Your task to perform on an android device: delete location history Image 0: 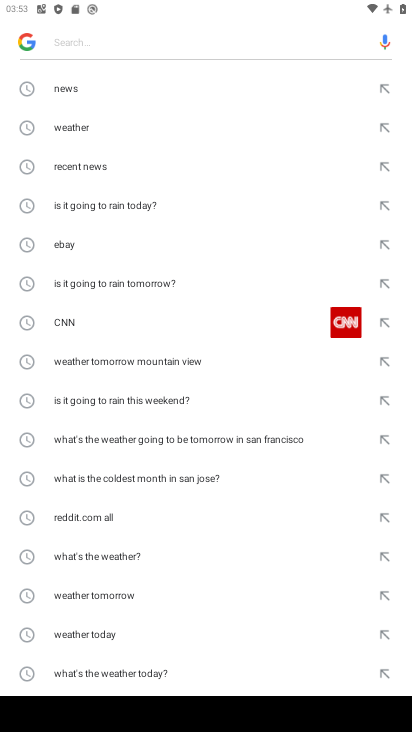
Step 0: press home button
Your task to perform on an android device: delete location history Image 1: 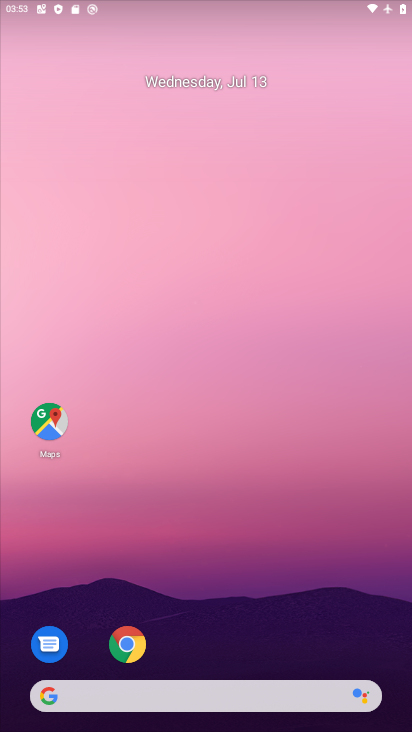
Step 1: drag from (321, 610) to (245, 70)
Your task to perform on an android device: delete location history Image 2: 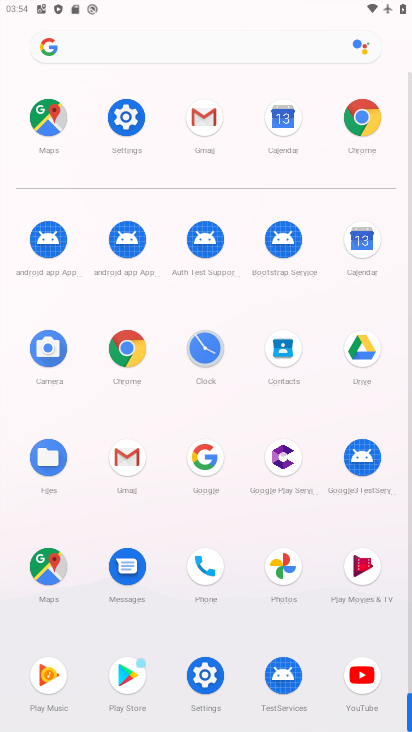
Step 2: click (54, 117)
Your task to perform on an android device: delete location history Image 3: 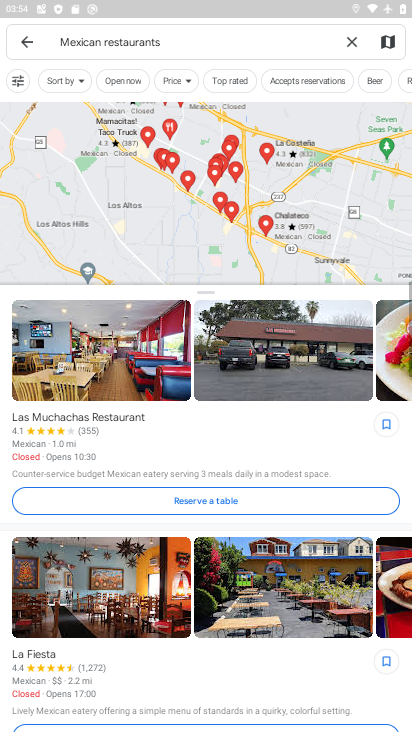
Step 3: click (27, 42)
Your task to perform on an android device: delete location history Image 4: 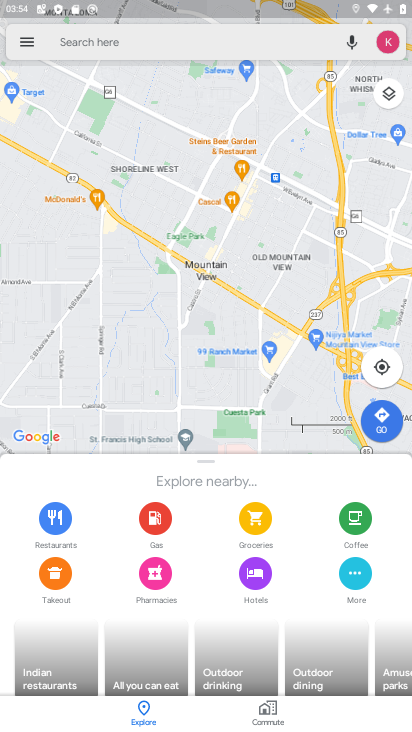
Step 4: click (30, 42)
Your task to perform on an android device: delete location history Image 5: 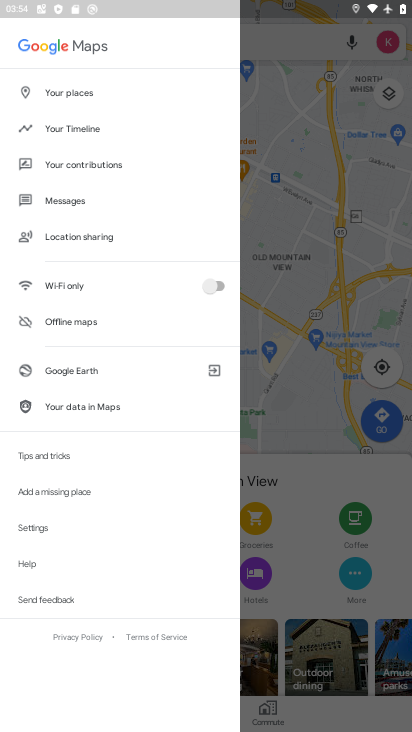
Step 5: click (45, 526)
Your task to perform on an android device: delete location history Image 6: 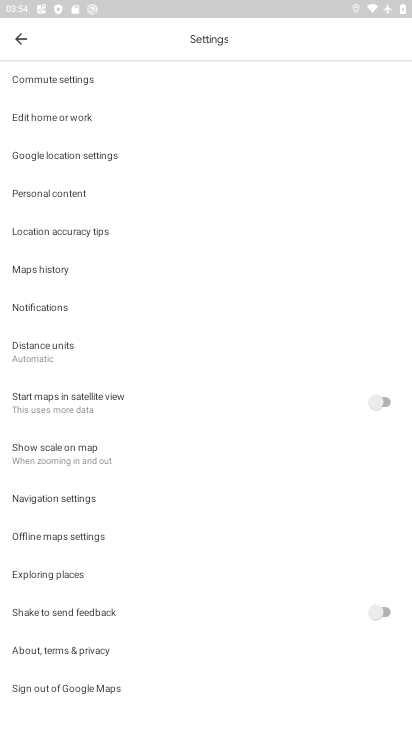
Step 6: click (41, 270)
Your task to perform on an android device: delete location history Image 7: 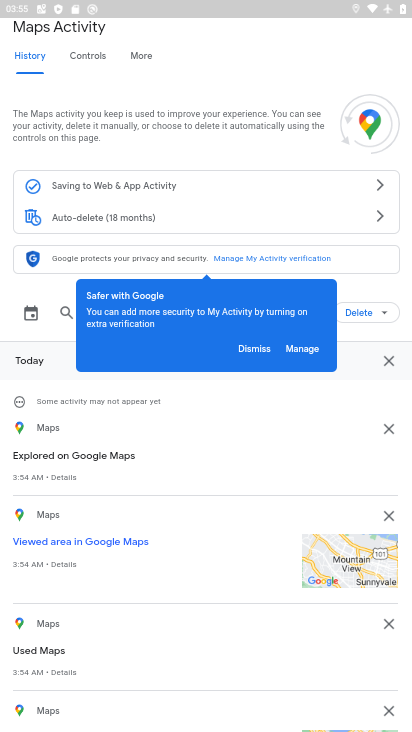
Step 7: click (385, 311)
Your task to perform on an android device: delete location history Image 8: 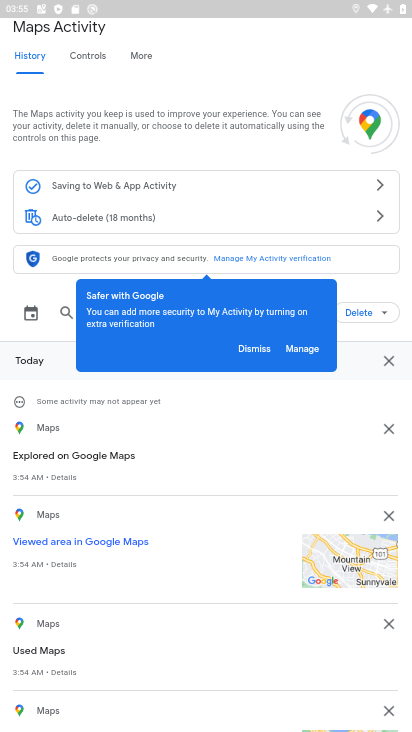
Step 8: click (394, 312)
Your task to perform on an android device: delete location history Image 9: 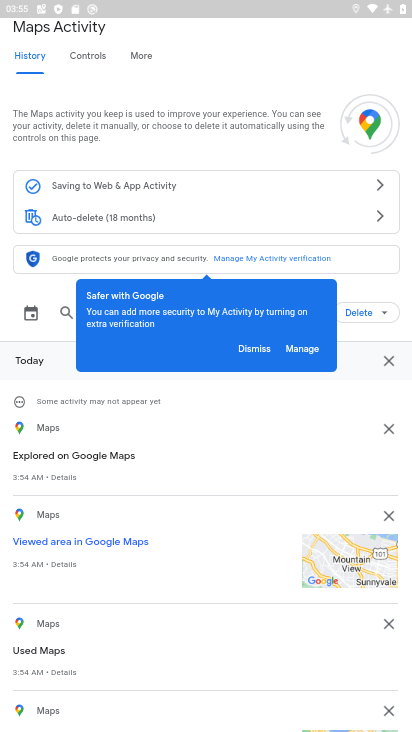
Step 9: click (384, 318)
Your task to perform on an android device: delete location history Image 10: 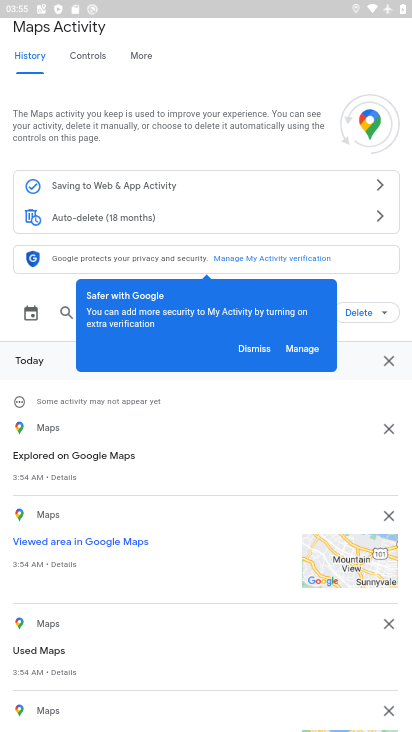
Step 10: click (375, 316)
Your task to perform on an android device: delete location history Image 11: 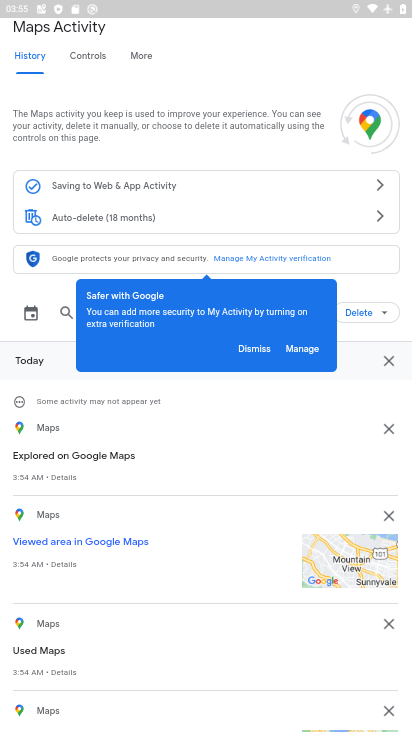
Step 11: click (383, 309)
Your task to perform on an android device: delete location history Image 12: 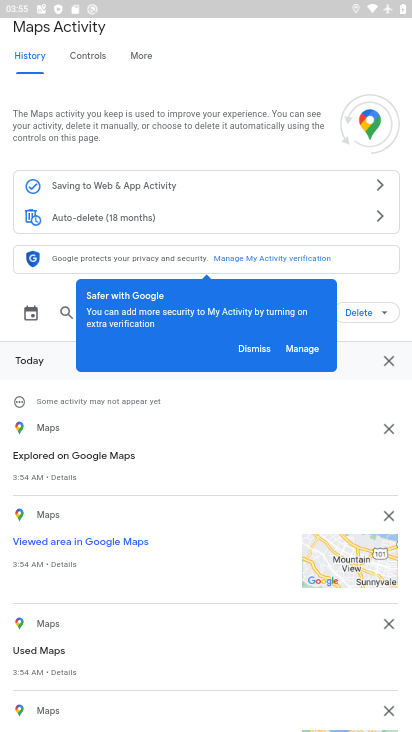
Step 12: click (380, 306)
Your task to perform on an android device: delete location history Image 13: 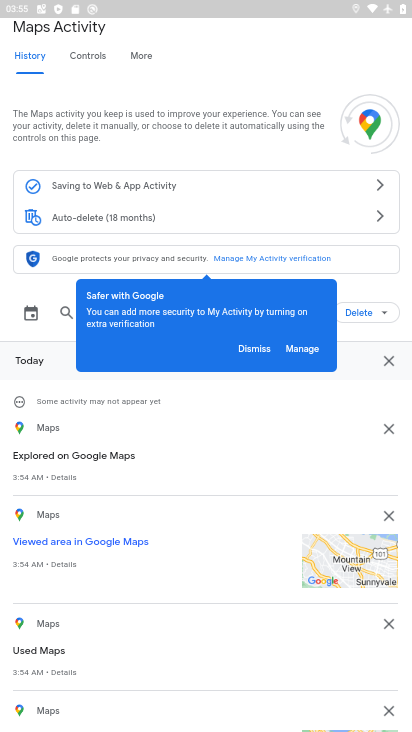
Step 13: click (380, 306)
Your task to perform on an android device: delete location history Image 14: 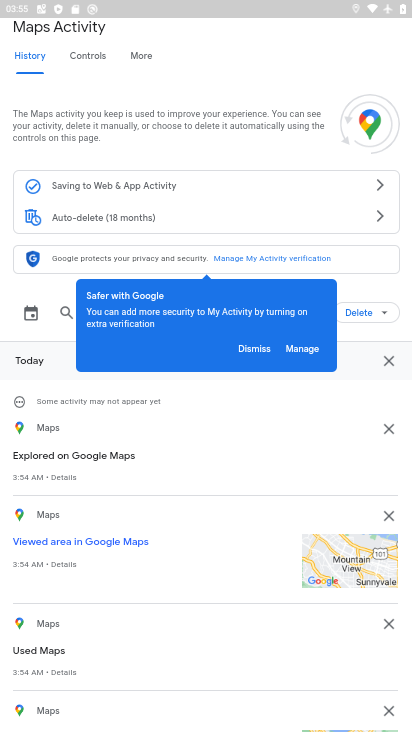
Step 14: click (242, 350)
Your task to perform on an android device: delete location history Image 15: 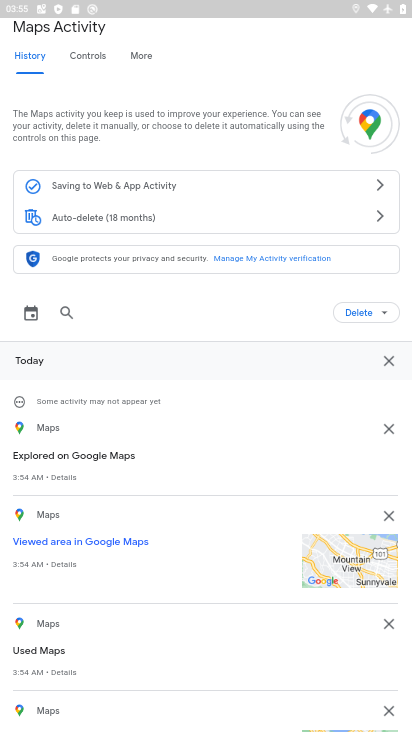
Step 15: click (393, 311)
Your task to perform on an android device: delete location history Image 16: 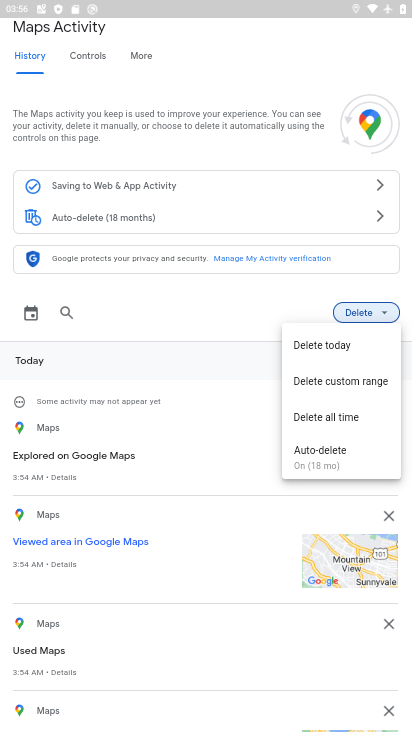
Step 16: drag from (328, 452) to (311, 419)
Your task to perform on an android device: delete location history Image 17: 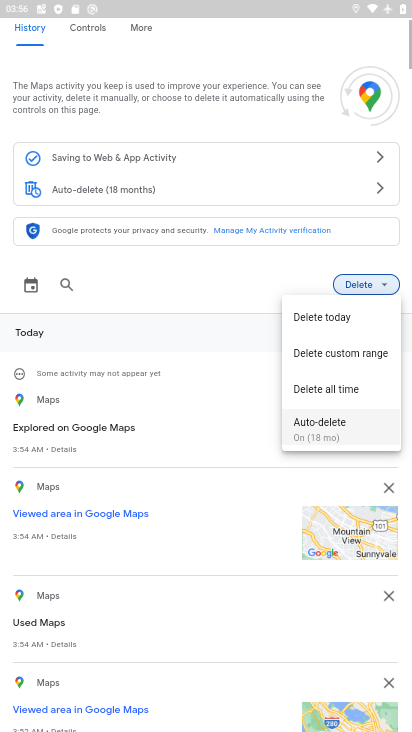
Step 17: click (311, 419)
Your task to perform on an android device: delete location history Image 18: 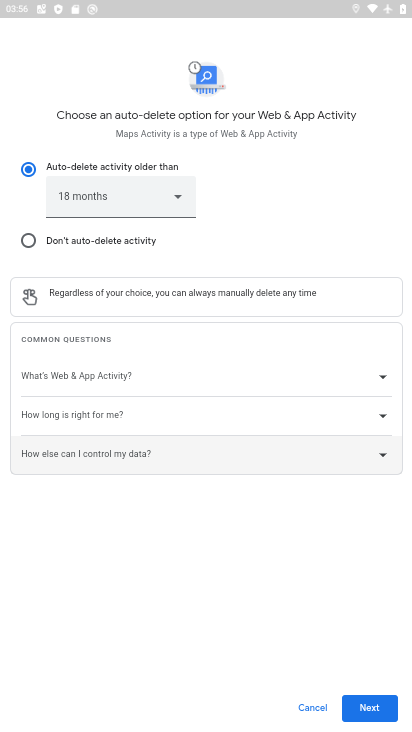
Step 18: click (327, 391)
Your task to perform on an android device: delete location history Image 19: 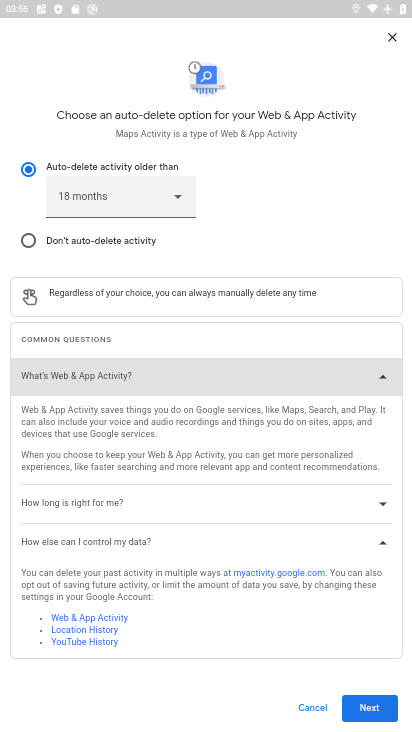
Step 19: click (394, 38)
Your task to perform on an android device: delete location history Image 20: 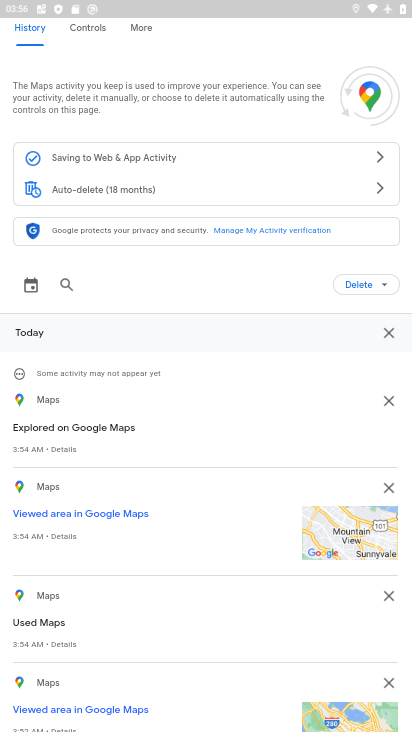
Step 20: click (373, 282)
Your task to perform on an android device: delete location history Image 21: 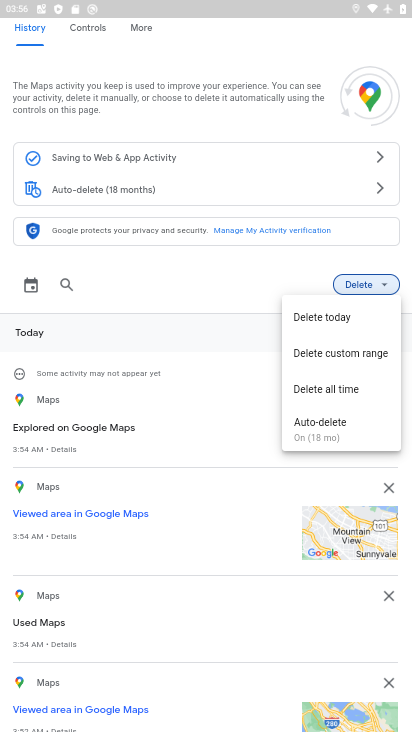
Step 21: click (346, 391)
Your task to perform on an android device: delete location history Image 22: 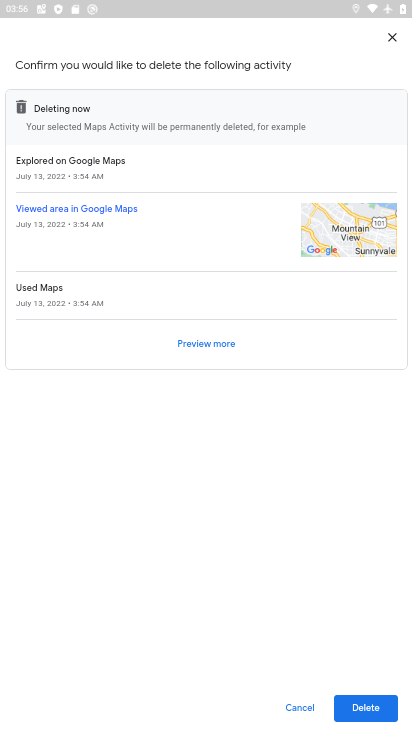
Step 22: click (359, 697)
Your task to perform on an android device: delete location history Image 23: 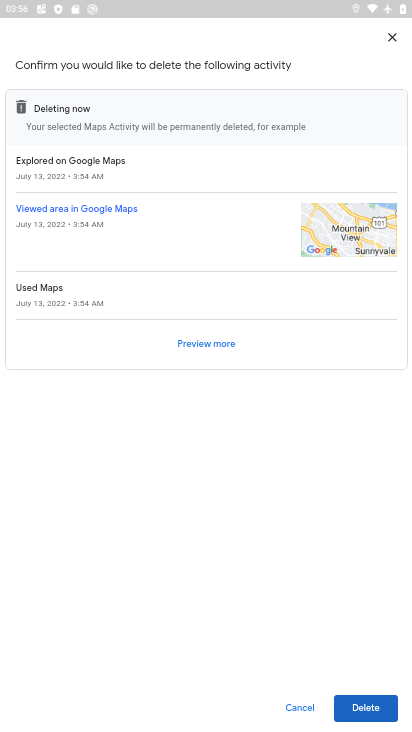
Step 23: click (365, 709)
Your task to perform on an android device: delete location history Image 24: 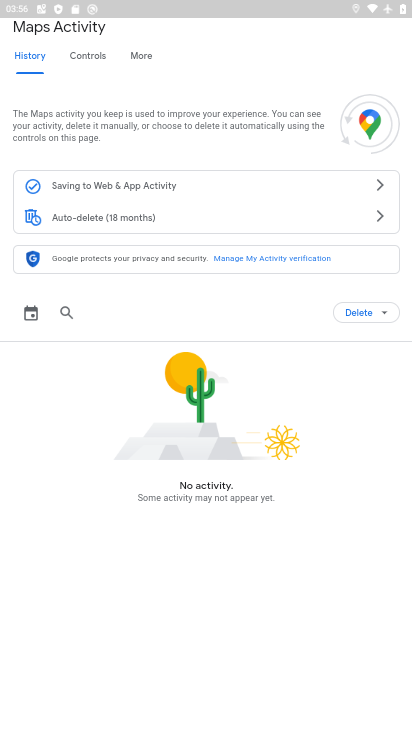
Step 24: task complete